Your task to perform on an android device: change notification settings in the gmail app Image 0: 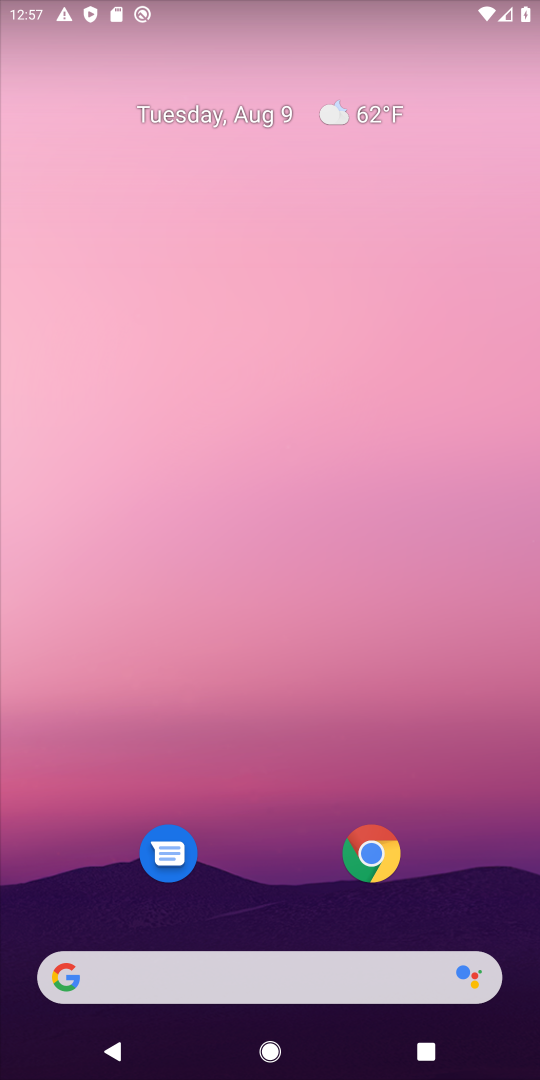
Step 0: click (378, 862)
Your task to perform on an android device: change notification settings in the gmail app Image 1: 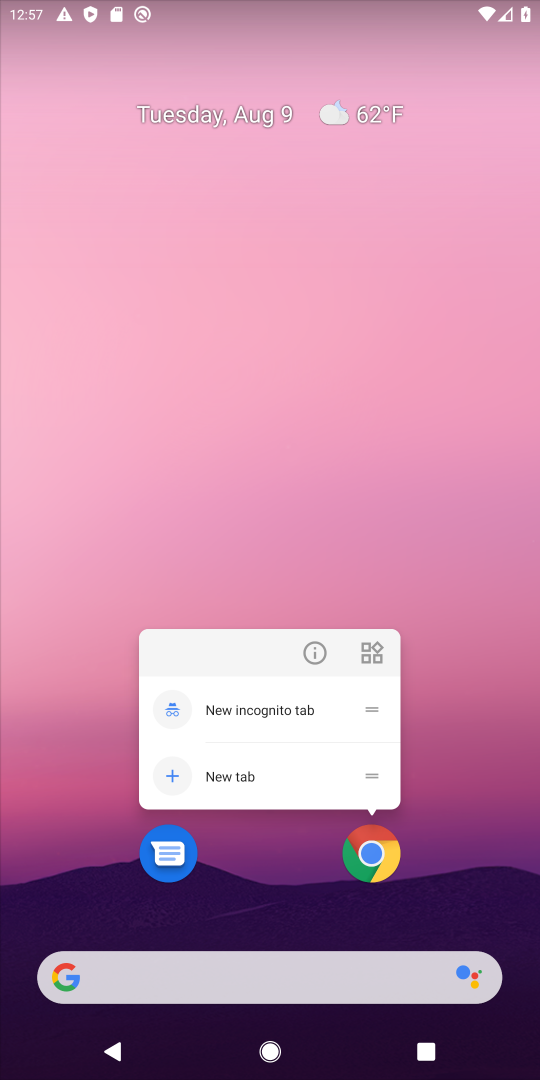
Step 1: click (379, 851)
Your task to perform on an android device: change notification settings in the gmail app Image 2: 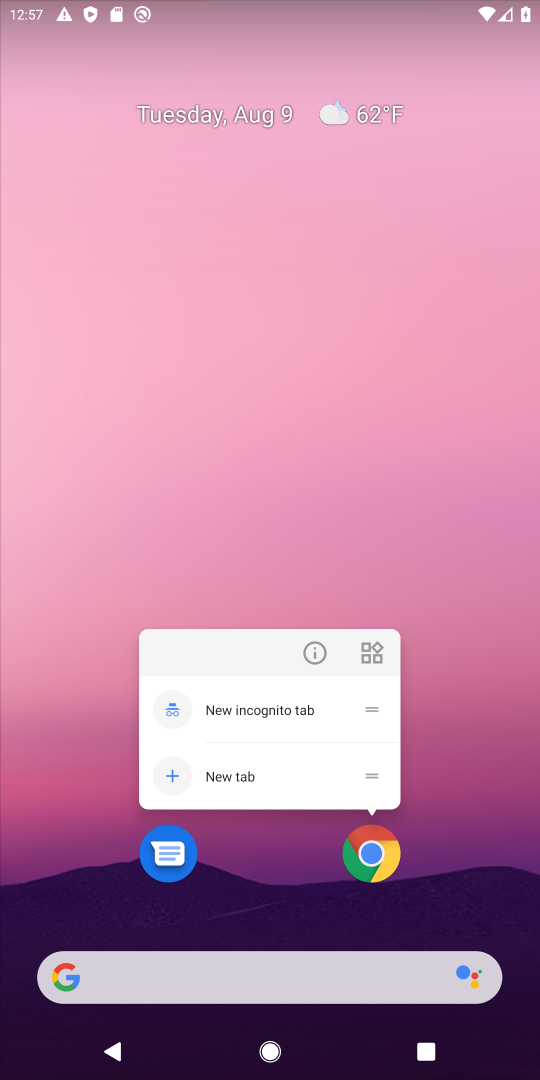
Step 2: click (378, 851)
Your task to perform on an android device: change notification settings in the gmail app Image 3: 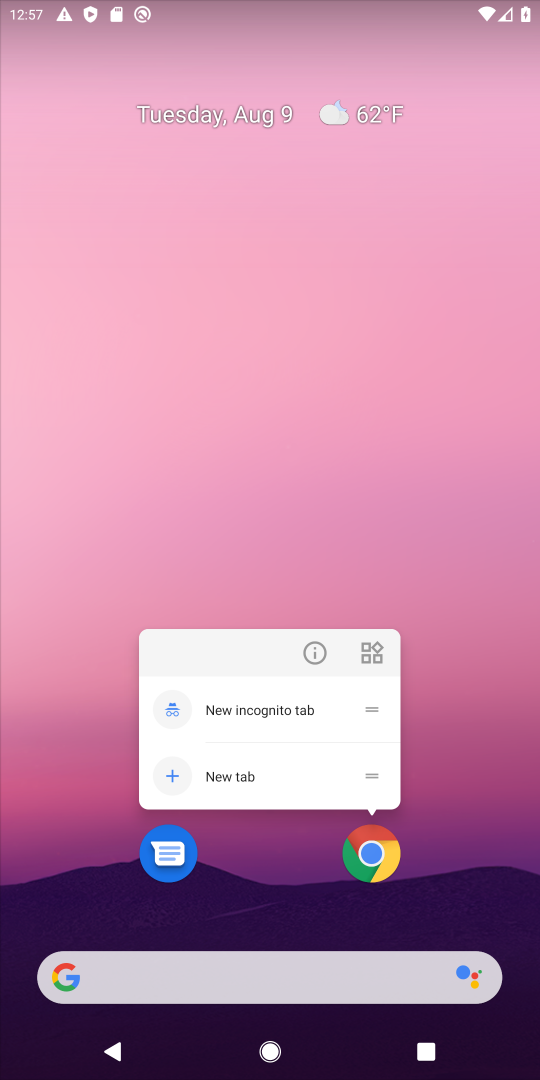
Step 3: click (243, 893)
Your task to perform on an android device: change notification settings in the gmail app Image 4: 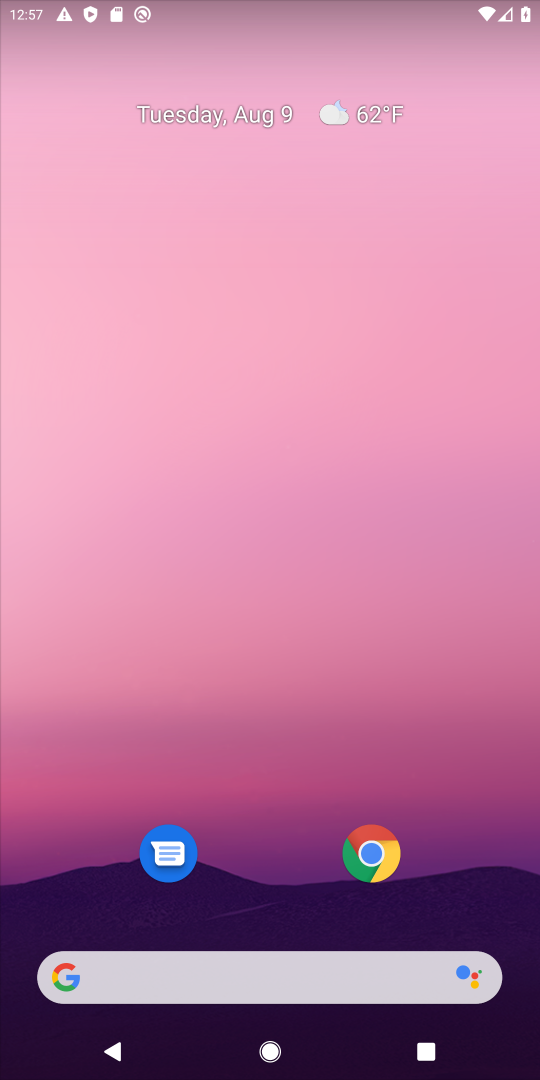
Step 4: press home button
Your task to perform on an android device: change notification settings in the gmail app Image 5: 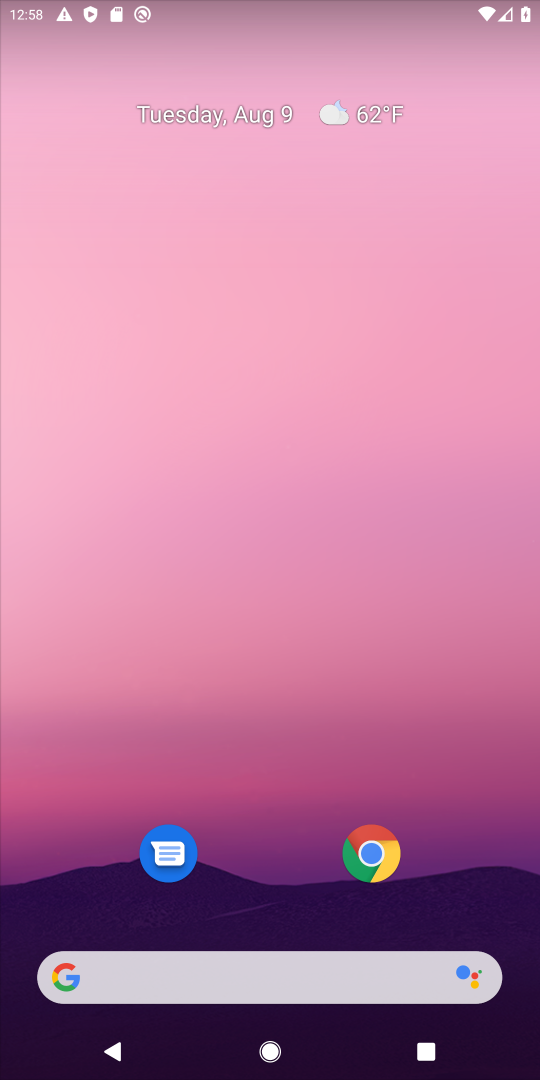
Step 5: drag from (187, 31) to (485, 10)
Your task to perform on an android device: change notification settings in the gmail app Image 6: 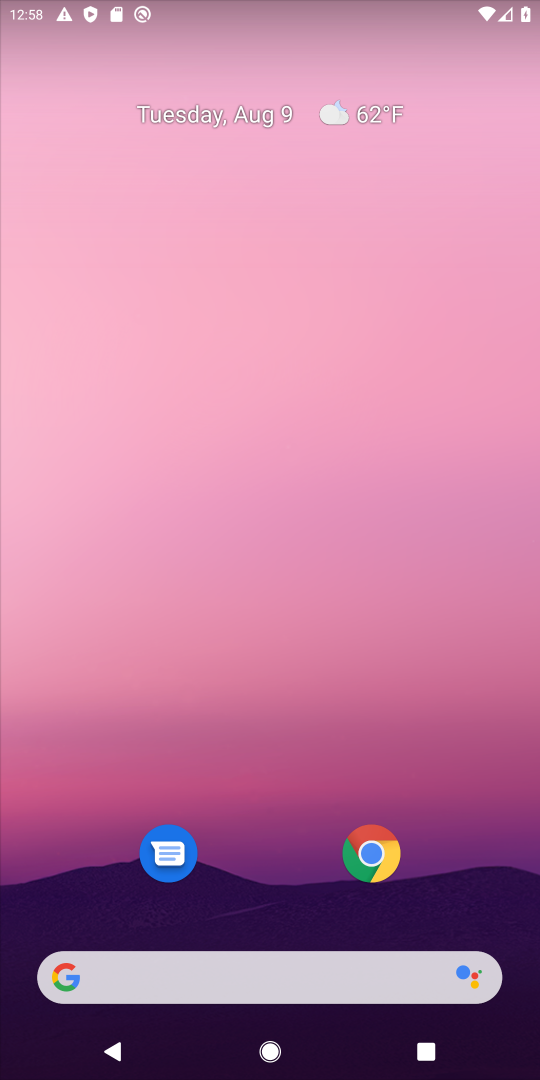
Step 6: drag from (238, 310) to (516, 644)
Your task to perform on an android device: change notification settings in the gmail app Image 7: 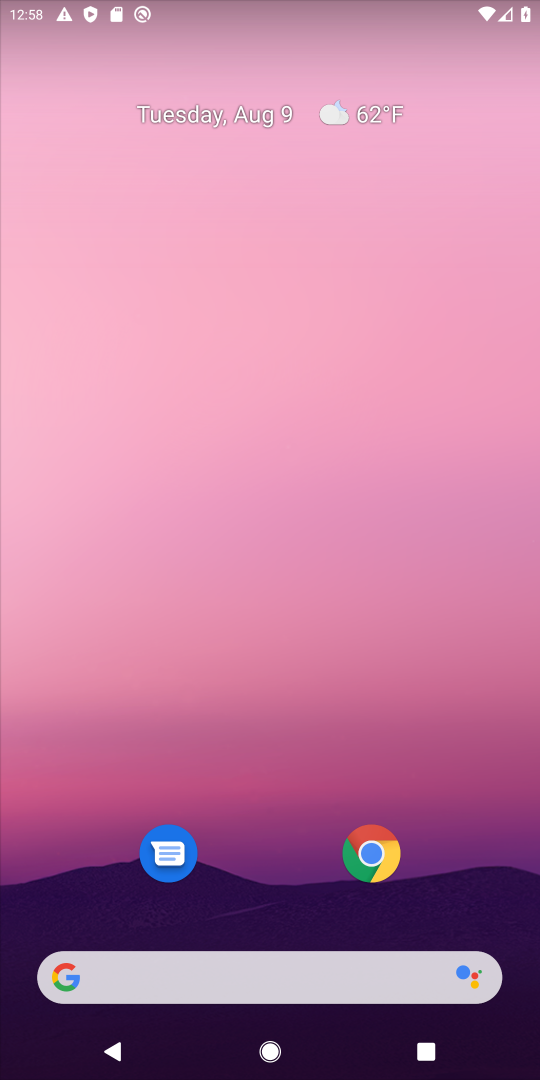
Step 7: drag from (278, 895) to (249, 4)
Your task to perform on an android device: change notification settings in the gmail app Image 8: 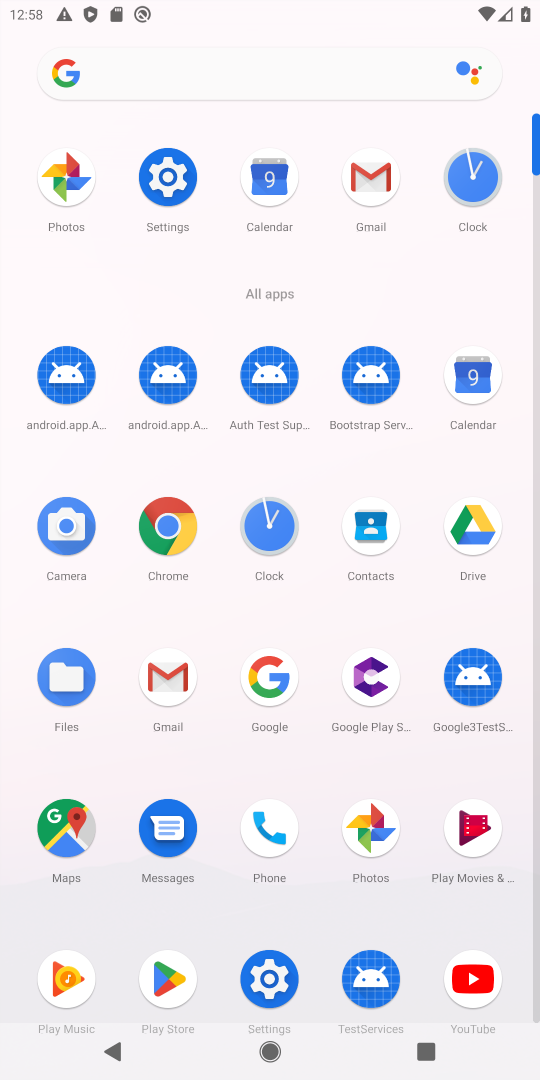
Step 8: click (346, 181)
Your task to perform on an android device: change notification settings in the gmail app Image 9: 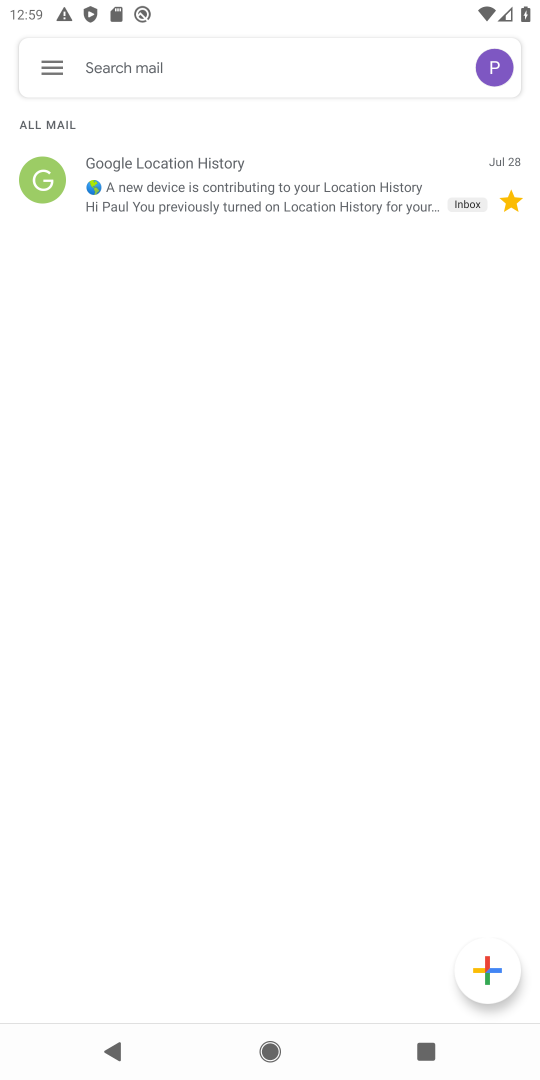
Step 9: click (46, 62)
Your task to perform on an android device: change notification settings in the gmail app Image 10: 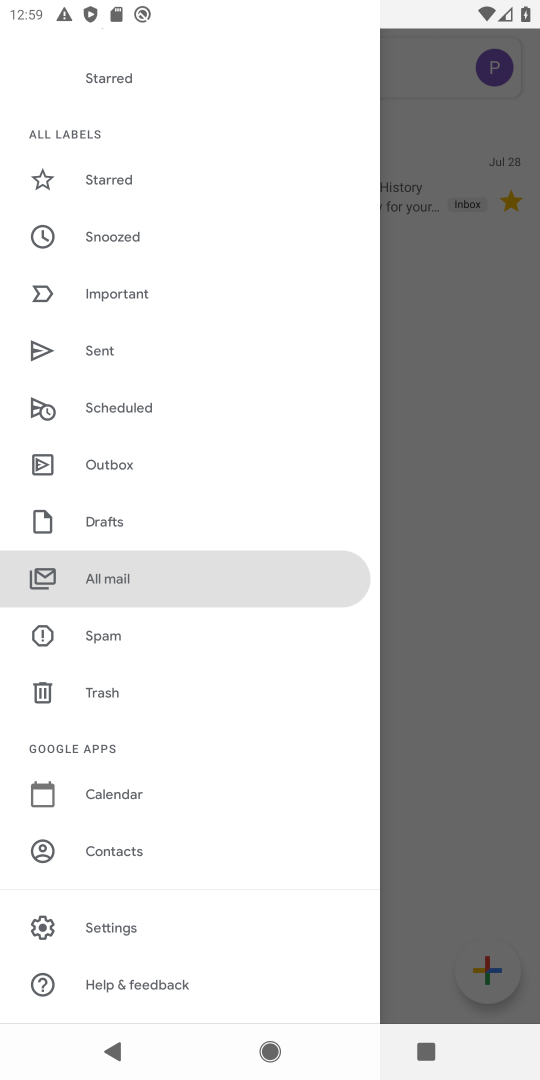
Step 10: click (118, 928)
Your task to perform on an android device: change notification settings in the gmail app Image 11: 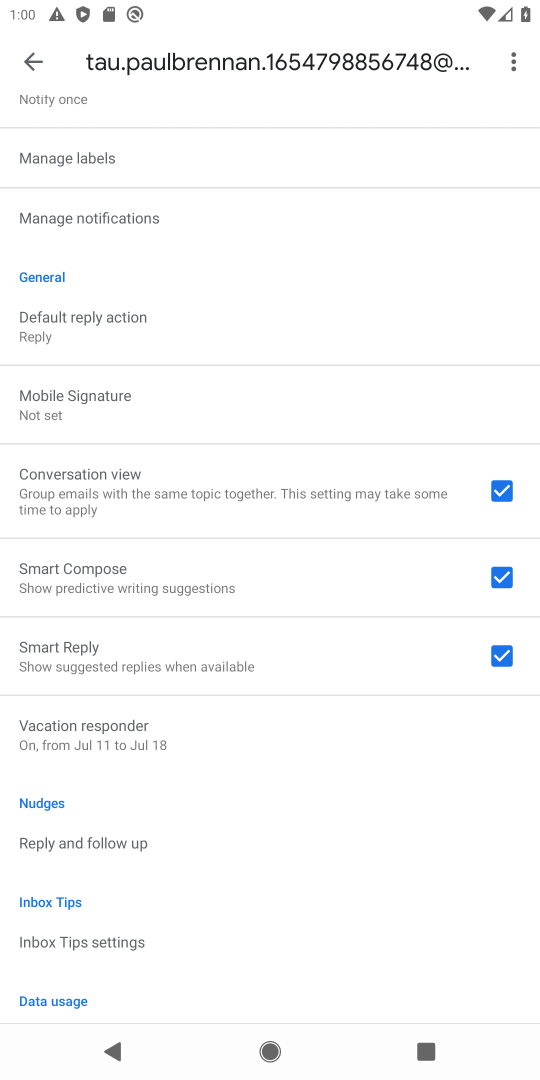
Step 11: drag from (175, 804) to (155, 705)
Your task to perform on an android device: change notification settings in the gmail app Image 12: 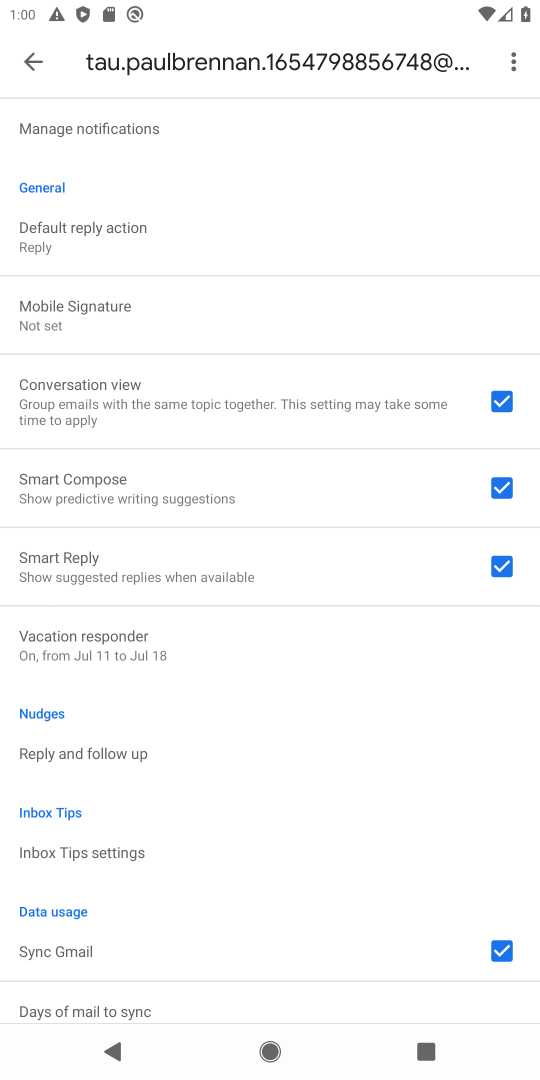
Step 12: click (58, 123)
Your task to perform on an android device: change notification settings in the gmail app Image 13: 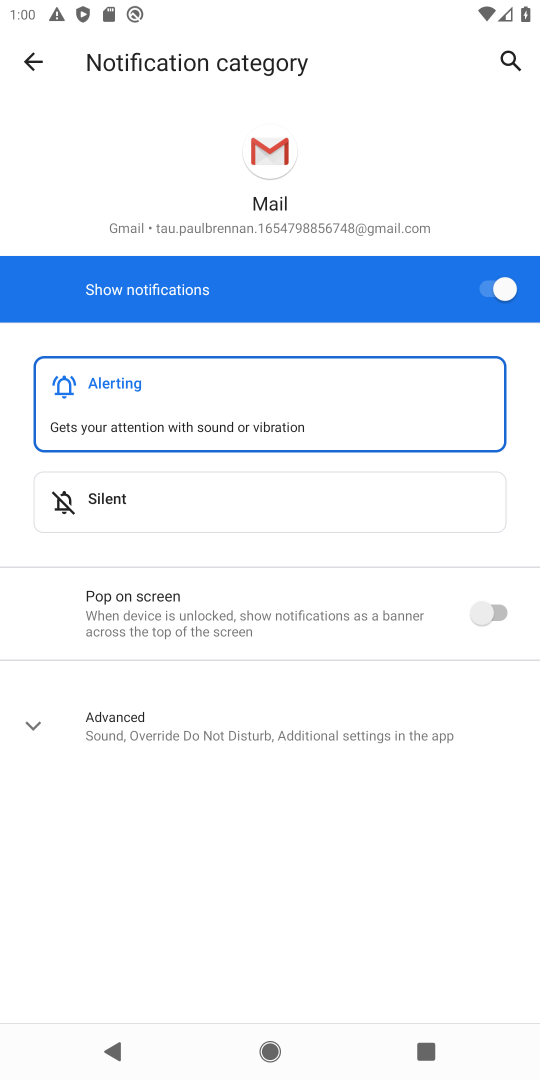
Step 13: click (506, 286)
Your task to perform on an android device: change notification settings in the gmail app Image 14: 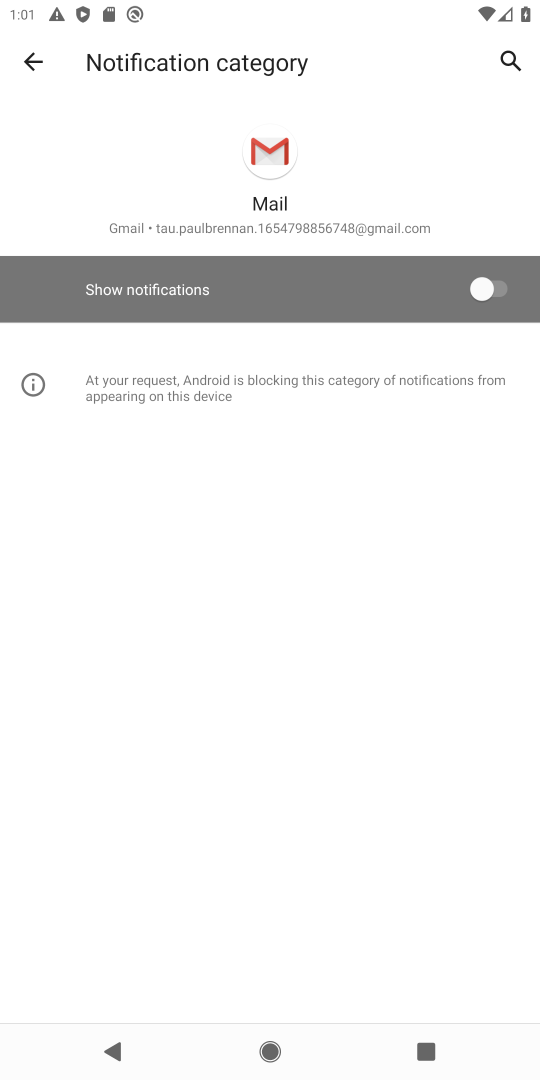
Step 14: click (498, 292)
Your task to perform on an android device: change notification settings in the gmail app Image 15: 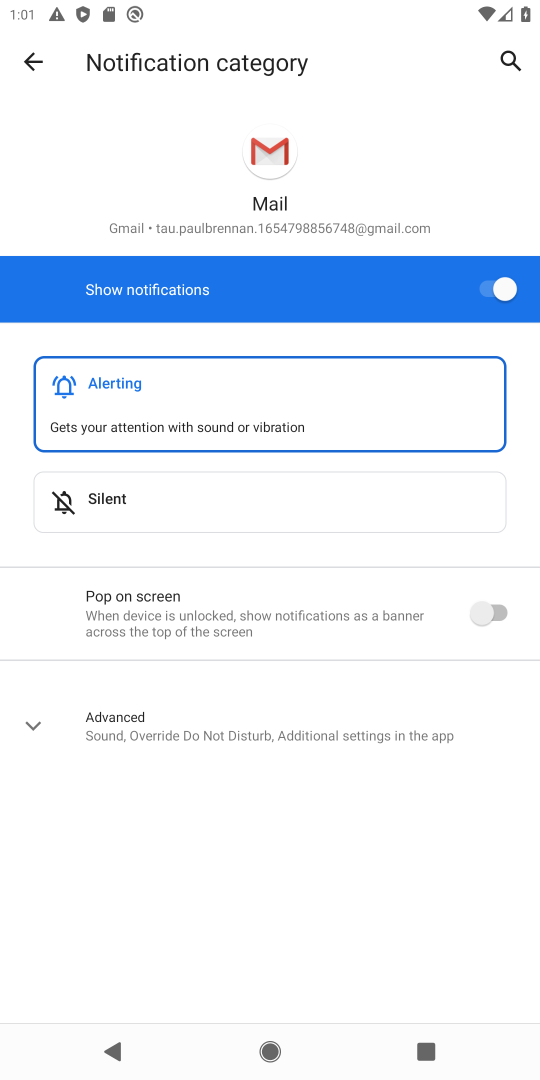
Step 15: task complete